Your task to perform on an android device: Go to internet settings Image 0: 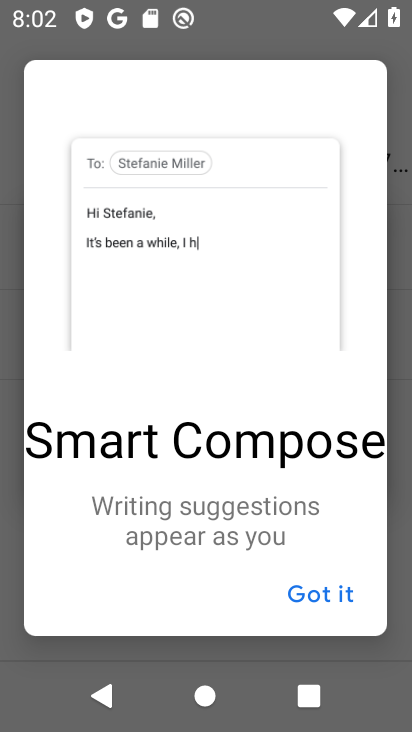
Step 0: click (338, 594)
Your task to perform on an android device: Go to internet settings Image 1: 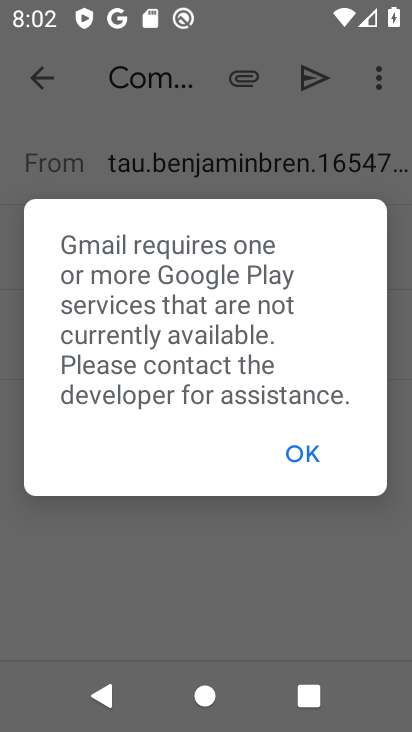
Step 1: click (285, 450)
Your task to perform on an android device: Go to internet settings Image 2: 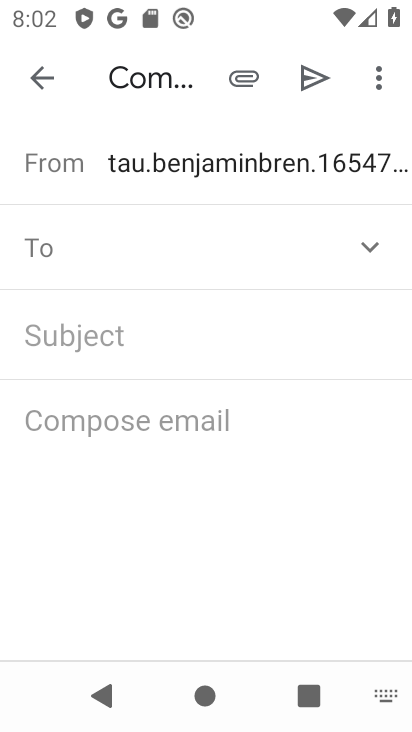
Step 2: press back button
Your task to perform on an android device: Go to internet settings Image 3: 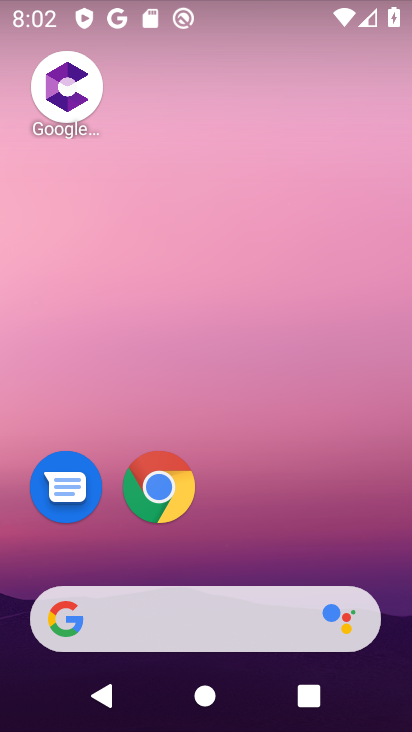
Step 3: drag from (275, 561) to (341, 60)
Your task to perform on an android device: Go to internet settings Image 4: 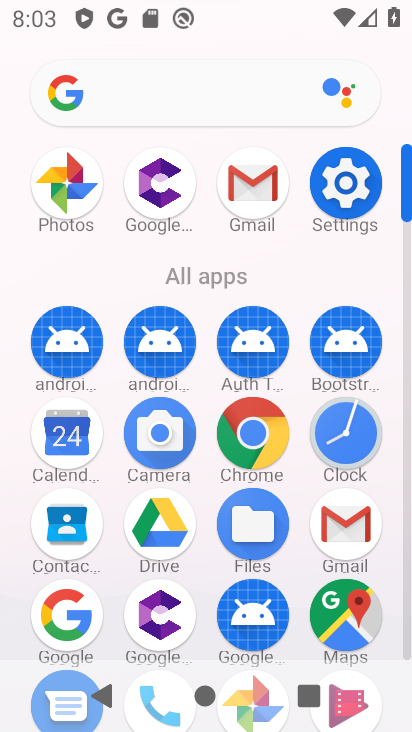
Step 4: click (343, 191)
Your task to perform on an android device: Go to internet settings Image 5: 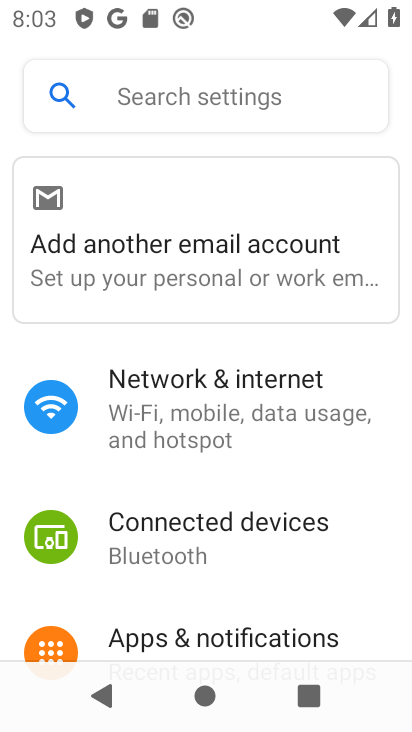
Step 5: click (290, 393)
Your task to perform on an android device: Go to internet settings Image 6: 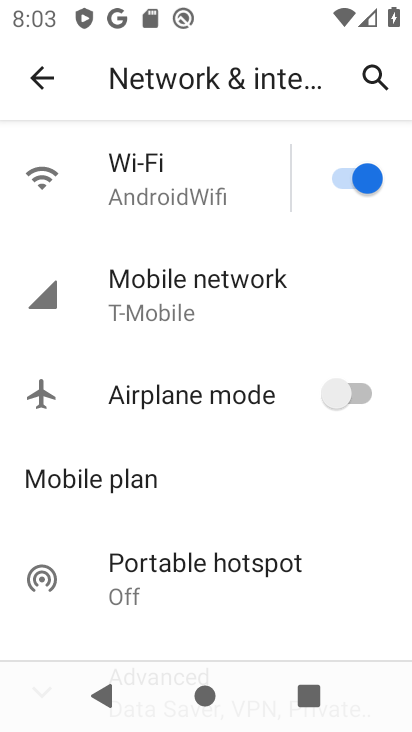
Step 6: task complete